Your task to perform on an android device: read, delete, or share a saved page in the chrome app Image 0: 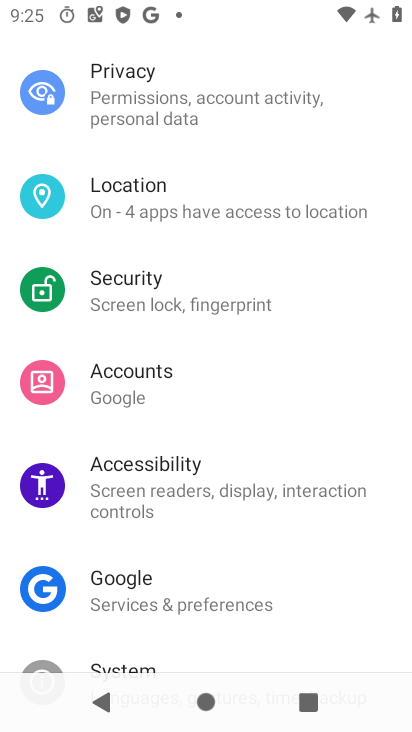
Step 0: press home button
Your task to perform on an android device: read, delete, or share a saved page in the chrome app Image 1: 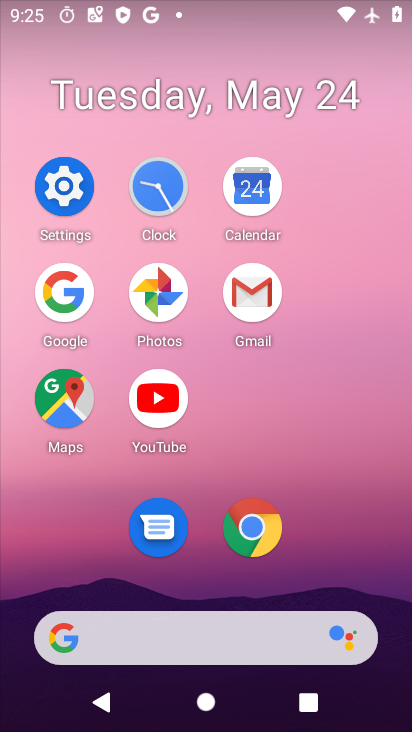
Step 1: click (279, 536)
Your task to perform on an android device: read, delete, or share a saved page in the chrome app Image 2: 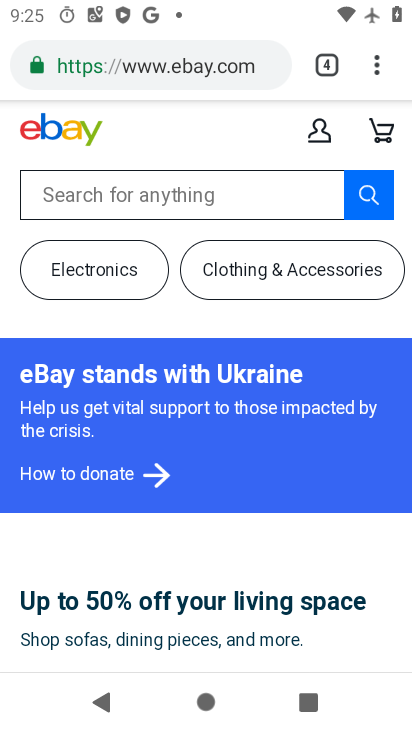
Step 2: click (372, 57)
Your task to perform on an android device: read, delete, or share a saved page in the chrome app Image 3: 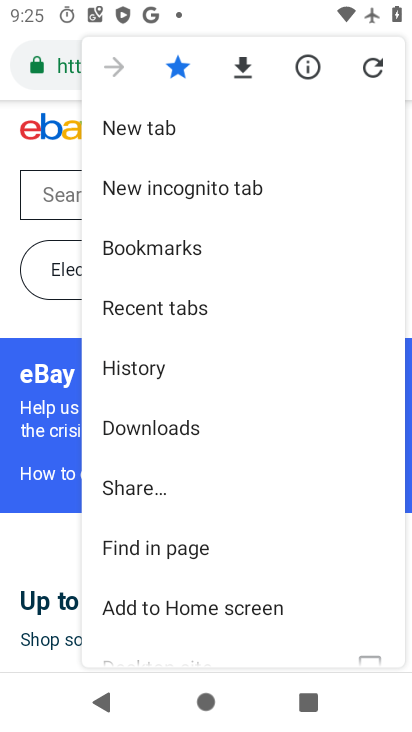
Step 3: click (178, 429)
Your task to perform on an android device: read, delete, or share a saved page in the chrome app Image 4: 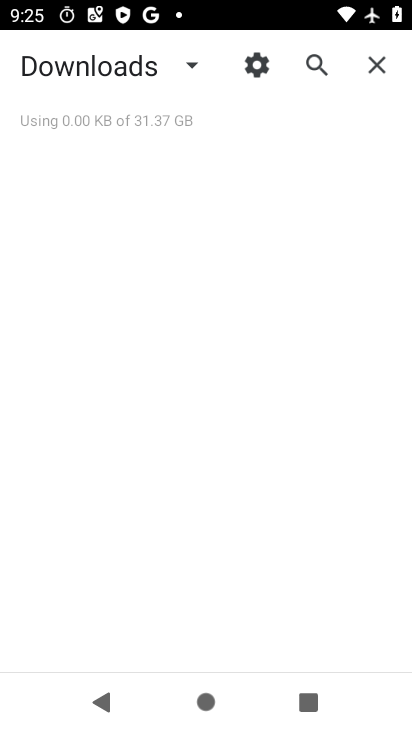
Step 4: task complete